Your task to perform on an android device: Go to display settings Image 0: 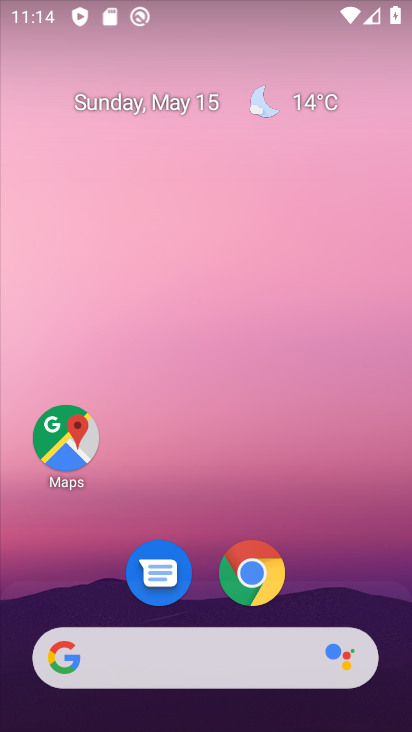
Step 0: drag from (317, 552) to (290, 41)
Your task to perform on an android device: Go to display settings Image 1: 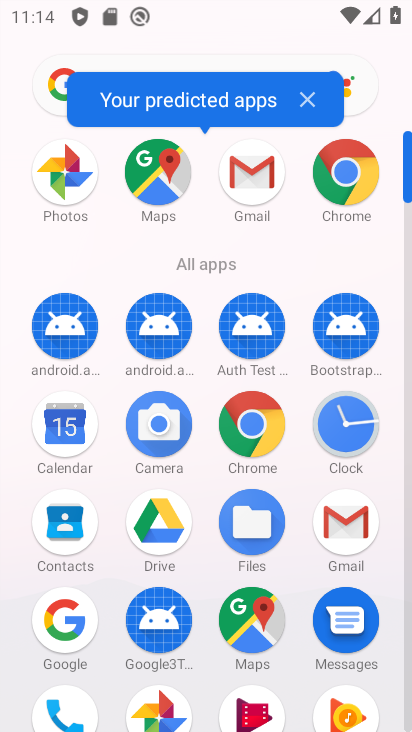
Step 1: drag from (200, 652) to (200, 256)
Your task to perform on an android device: Go to display settings Image 2: 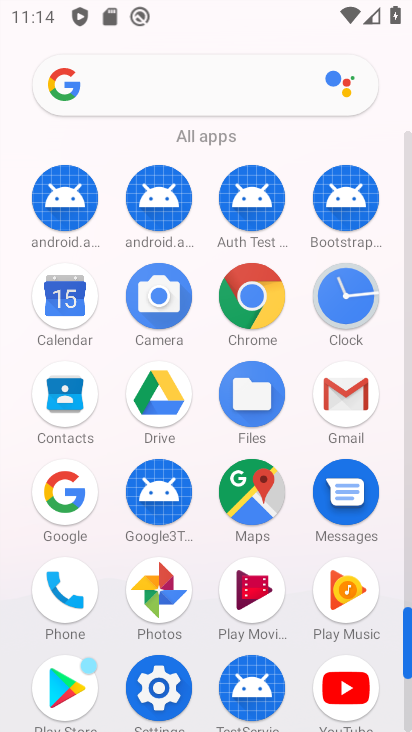
Step 2: click (157, 684)
Your task to perform on an android device: Go to display settings Image 3: 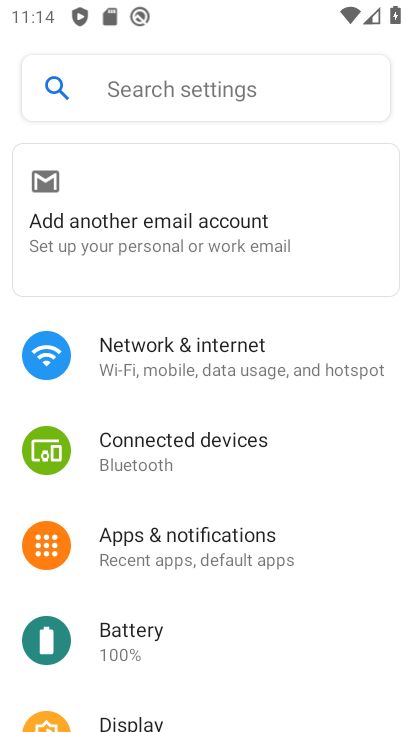
Step 3: drag from (204, 588) to (172, 311)
Your task to perform on an android device: Go to display settings Image 4: 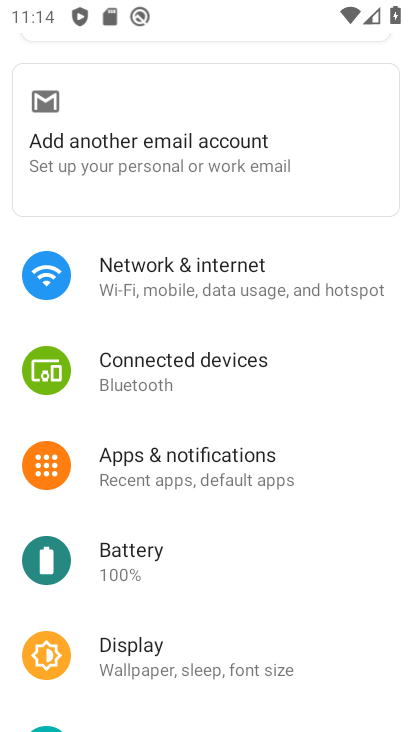
Step 4: click (139, 643)
Your task to perform on an android device: Go to display settings Image 5: 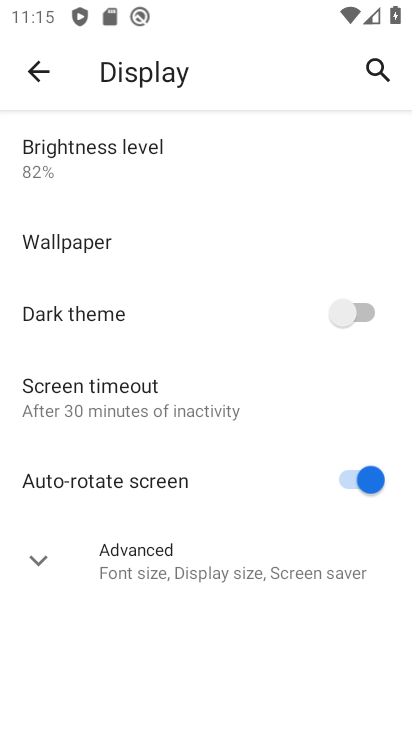
Step 5: task complete